Your task to perform on an android device: open device folders in google photos Image 0: 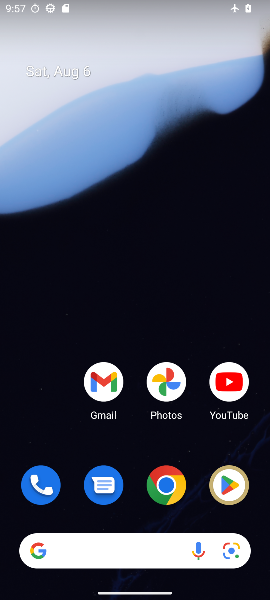
Step 0: drag from (125, 433) to (164, 127)
Your task to perform on an android device: open device folders in google photos Image 1: 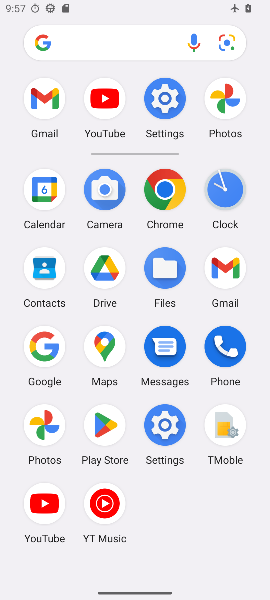
Step 1: click (47, 425)
Your task to perform on an android device: open device folders in google photos Image 2: 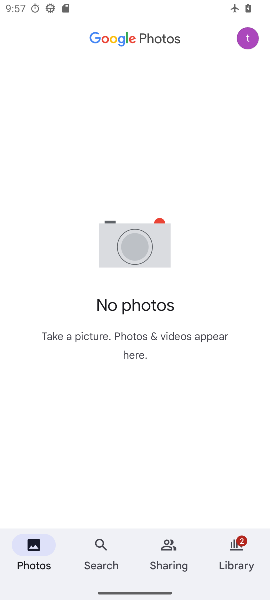
Step 2: task complete